Your task to perform on an android device: see tabs open on other devices in the chrome app Image 0: 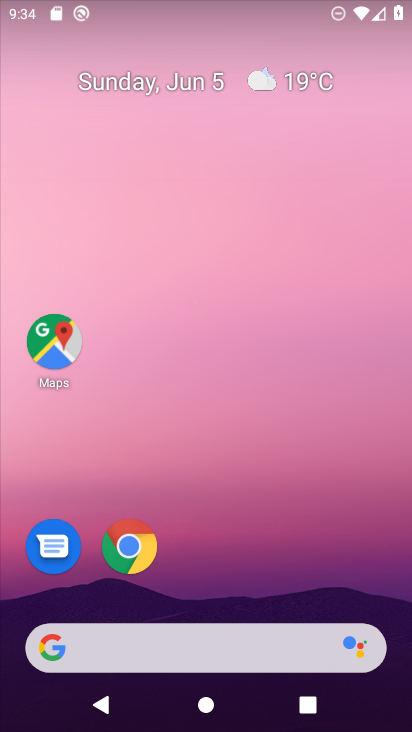
Step 0: click (143, 576)
Your task to perform on an android device: see tabs open on other devices in the chrome app Image 1: 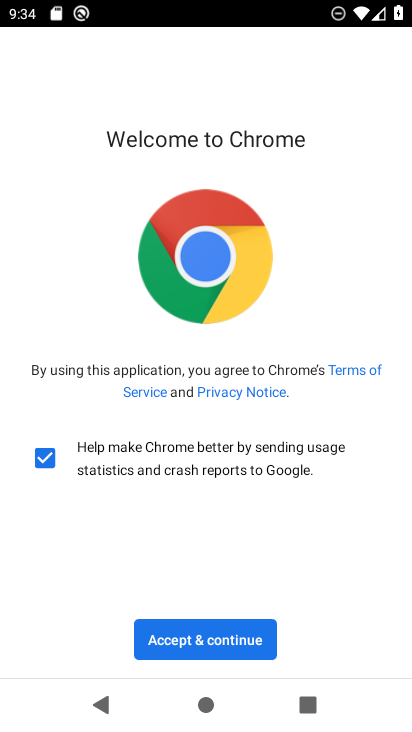
Step 1: click (225, 643)
Your task to perform on an android device: see tabs open on other devices in the chrome app Image 2: 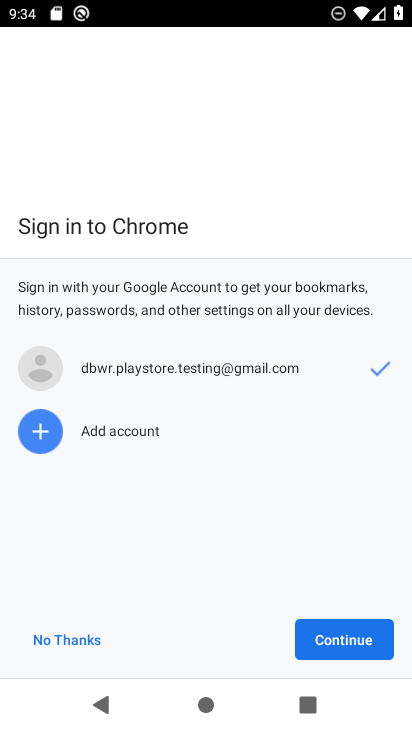
Step 2: click (318, 636)
Your task to perform on an android device: see tabs open on other devices in the chrome app Image 3: 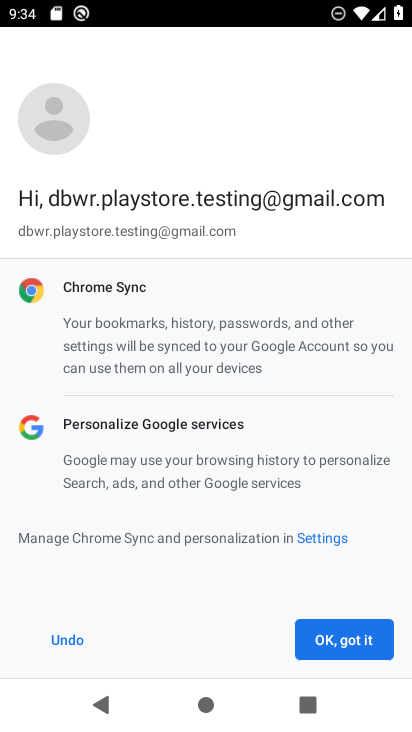
Step 3: click (318, 636)
Your task to perform on an android device: see tabs open on other devices in the chrome app Image 4: 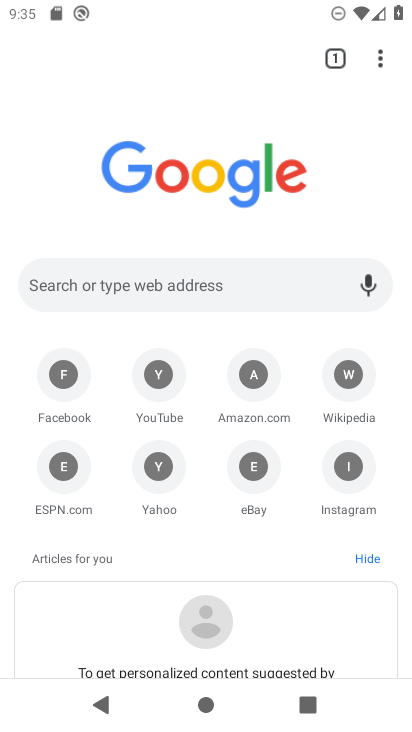
Step 4: click (331, 68)
Your task to perform on an android device: see tabs open on other devices in the chrome app Image 5: 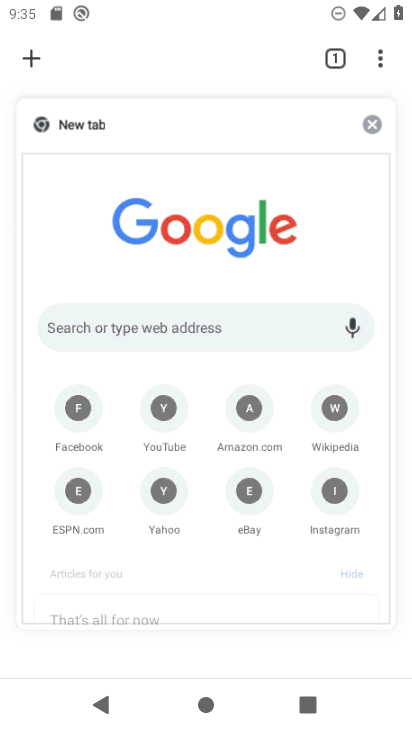
Step 5: task complete